Your task to perform on an android device: toggle sleep mode Image 0: 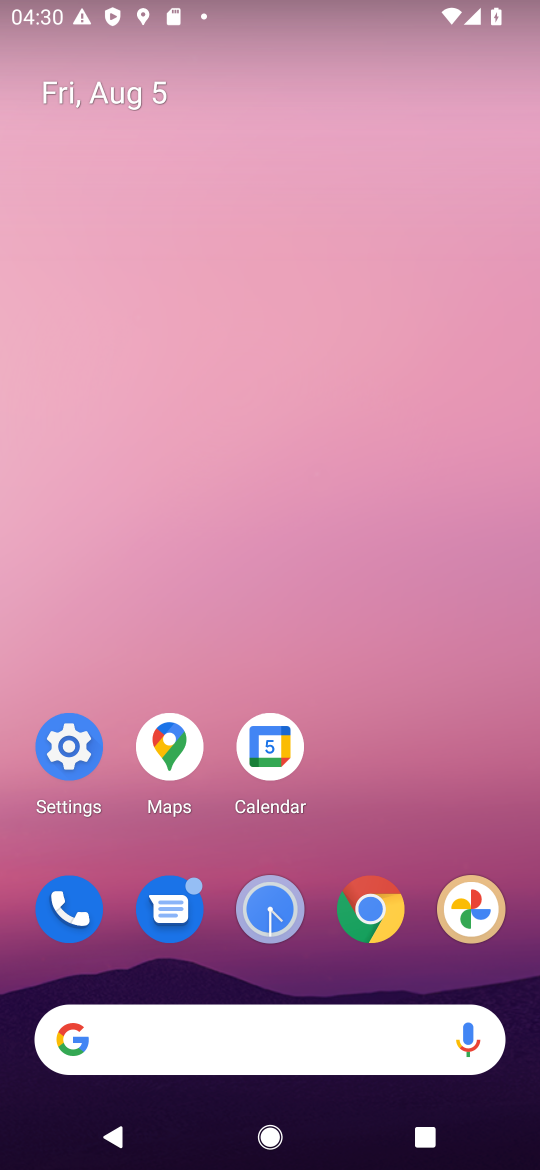
Step 0: click (69, 736)
Your task to perform on an android device: toggle sleep mode Image 1: 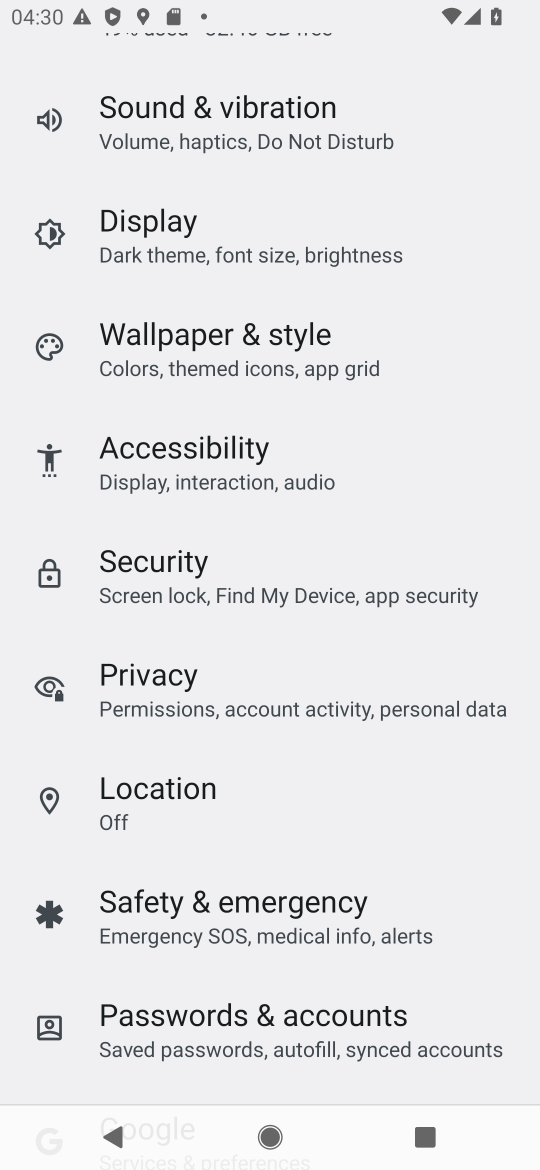
Step 1: click (141, 229)
Your task to perform on an android device: toggle sleep mode Image 2: 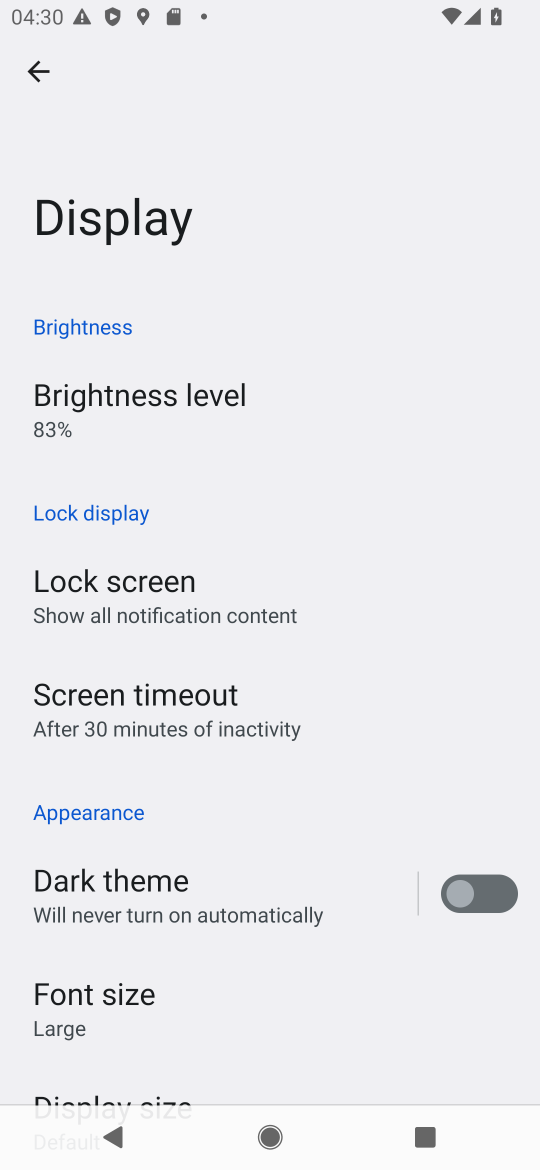
Step 2: task complete